Your task to perform on an android device: make emails show in primary in the gmail app Image 0: 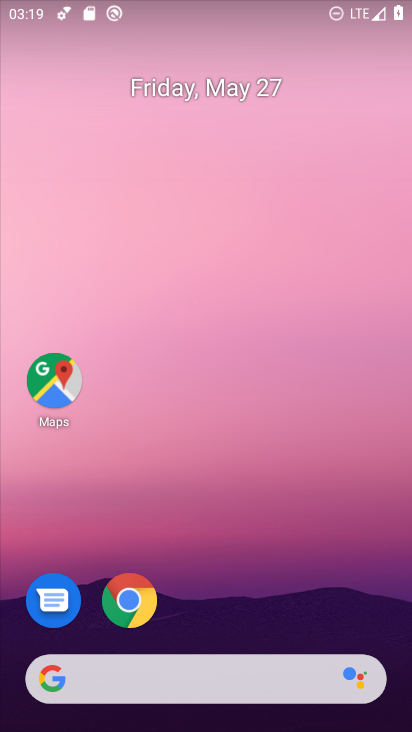
Step 0: drag from (201, 718) to (205, 173)
Your task to perform on an android device: make emails show in primary in the gmail app Image 1: 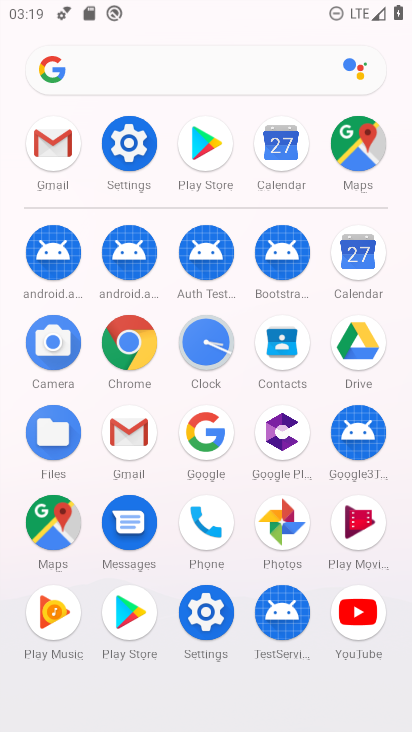
Step 1: click (131, 431)
Your task to perform on an android device: make emails show in primary in the gmail app Image 2: 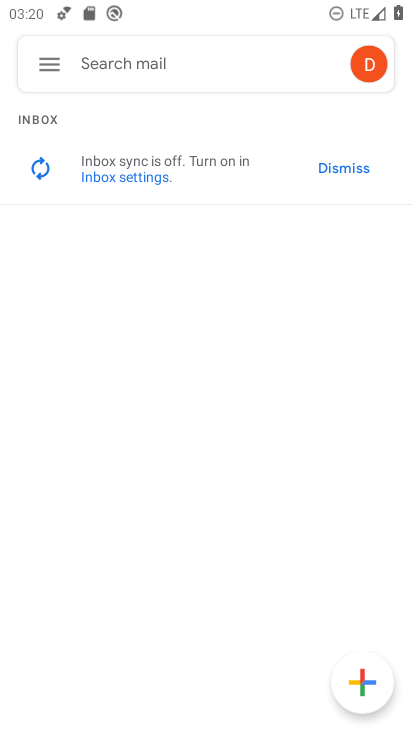
Step 2: click (48, 66)
Your task to perform on an android device: make emails show in primary in the gmail app Image 3: 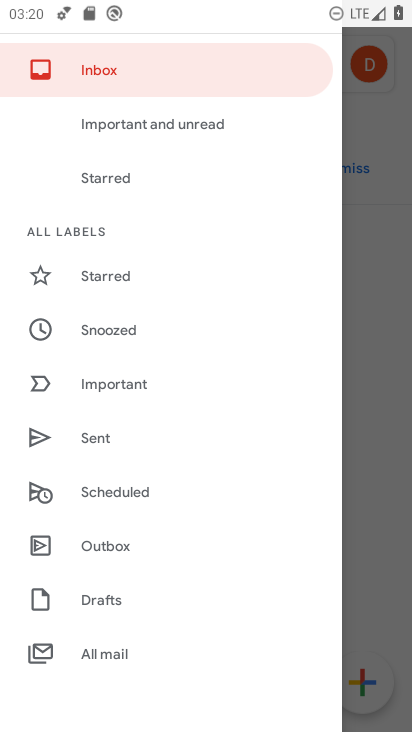
Step 3: drag from (88, 659) to (98, 176)
Your task to perform on an android device: make emails show in primary in the gmail app Image 4: 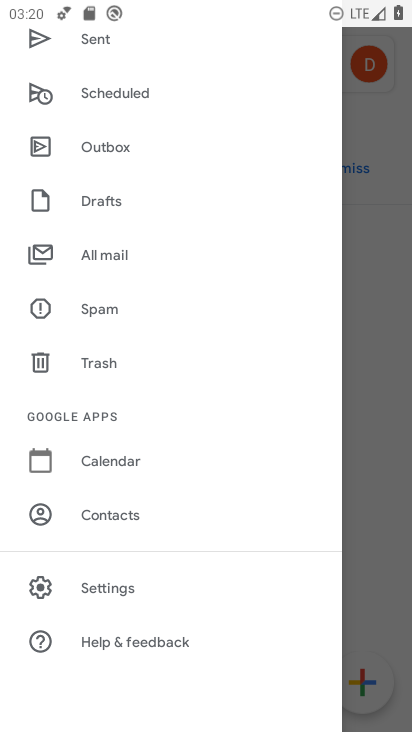
Step 4: click (106, 586)
Your task to perform on an android device: make emails show in primary in the gmail app Image 5: 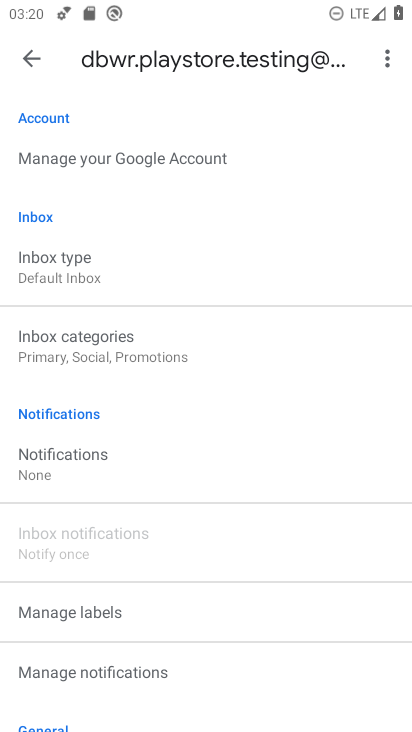
Step 5: drag from (132, 594) to (132, 407)
Your task to perform on an android device: make emails show in primary in the gmail app Image 6: 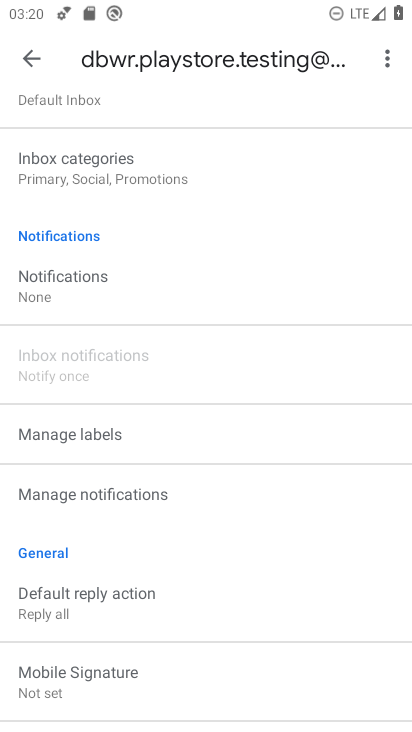
Step 6: drag from (217, 133) to (217, 426)
Your task to perform on an android device: make emails show in primary in the gmail app Image 7: 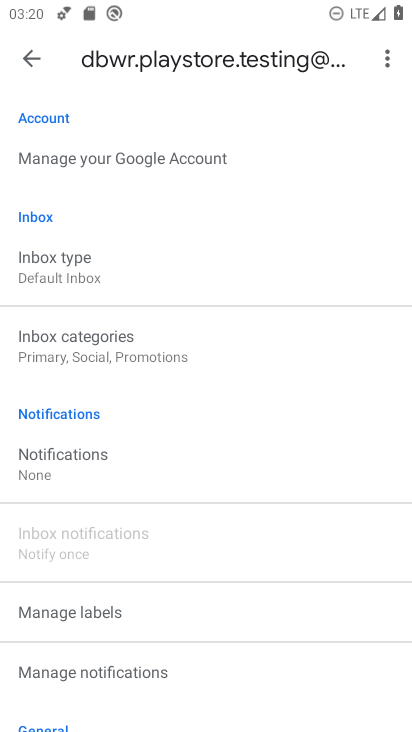
Step 7: click (63, 354)
Your task to perform on an android device: make emails show in primary in the gmail app Image 8: 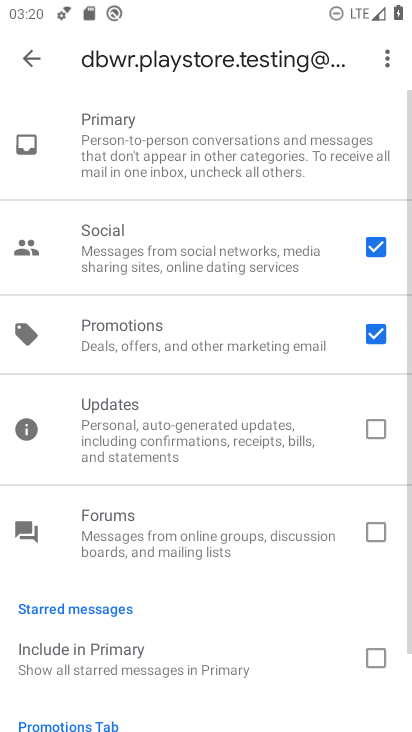
Step 8: click (373, 327)
Your task to perform on an android device: make emails show in primary in the gmail app Image 9: 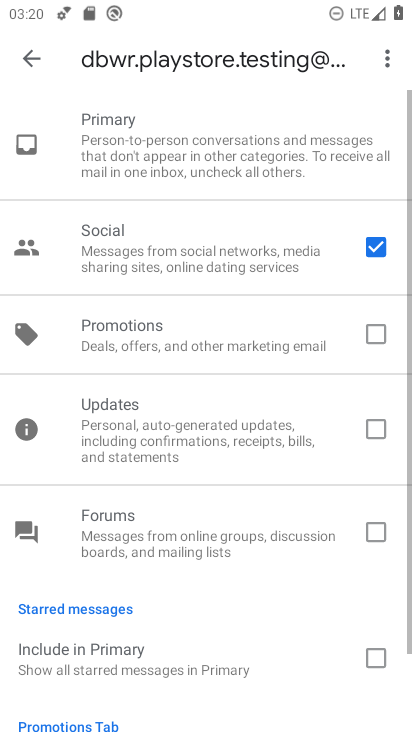
Step 9: click (379, 240)
Your task to perform on an android device: make emails show in primary in the gmail app Image 10: 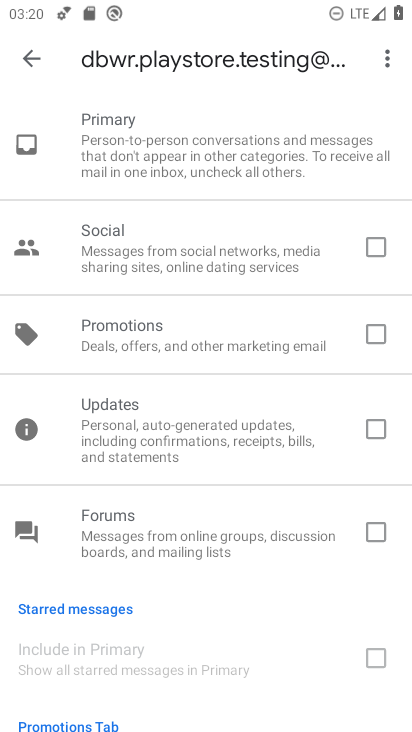
Step 10: click (34, 55)
Your task to perform on an android device: make emails show in primary in the gmail app Image 11: 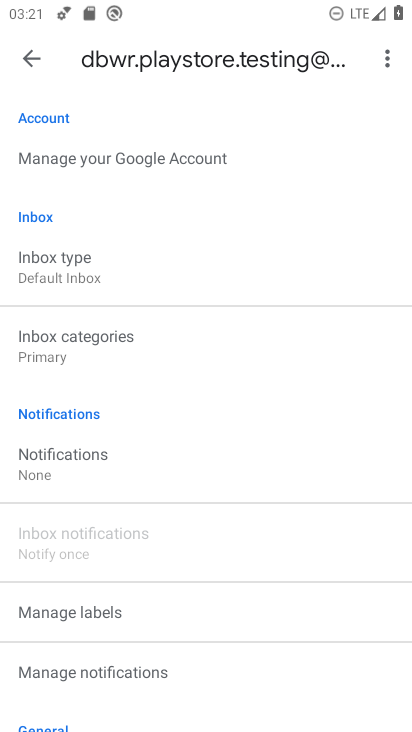
Step 11: task complete